Your task to perform on an android device: open the mobile data screen to see how much data has been used Image 0: 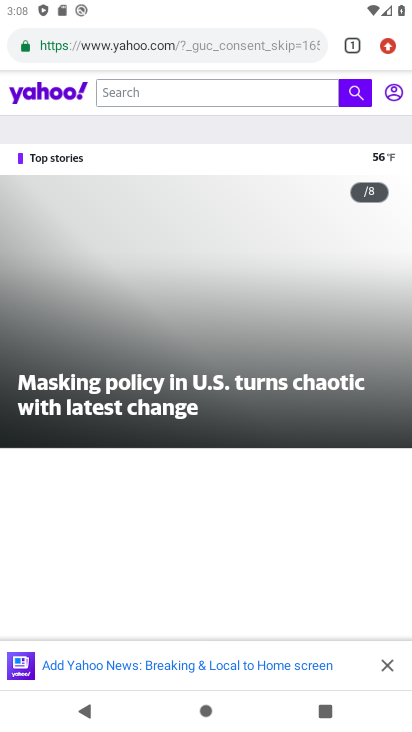
Step 0: press home button
Your task to perform on an android device: open the mobile data screen to see how much data has been used Image 1: 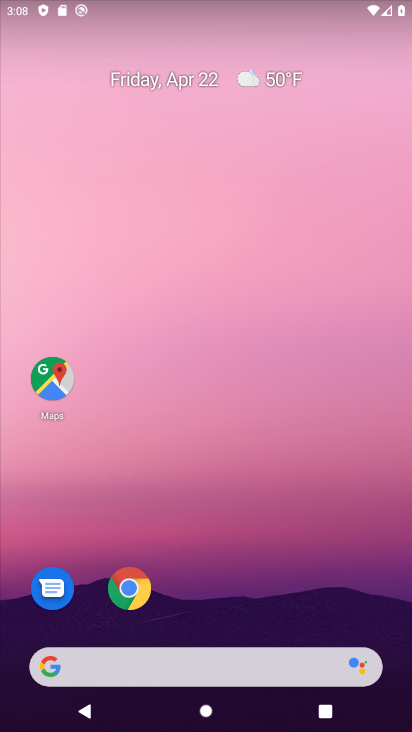
Step 1: drag from (354, 583) to (352, 85)
Your task to perform on an android device: open the mobile data screen to see how much data has been used Image 2: 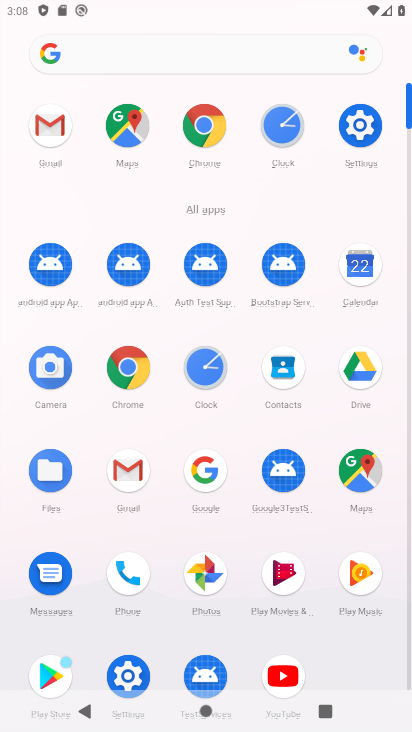
Step 2: click (368, 130)
Your task to perform on an android device: open the mobile data screen to see how much data has been used Image 3: 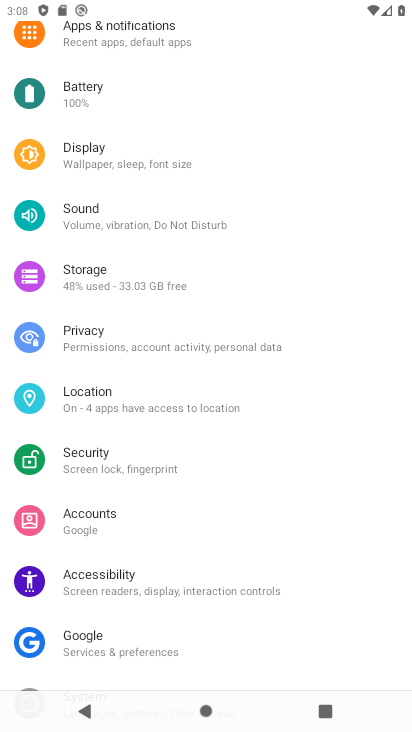
Step 3: drag from (366, 281) to (357, 426)
Your task to perform on an android device: open the mobile data screen to see how much data has been used Image 4: 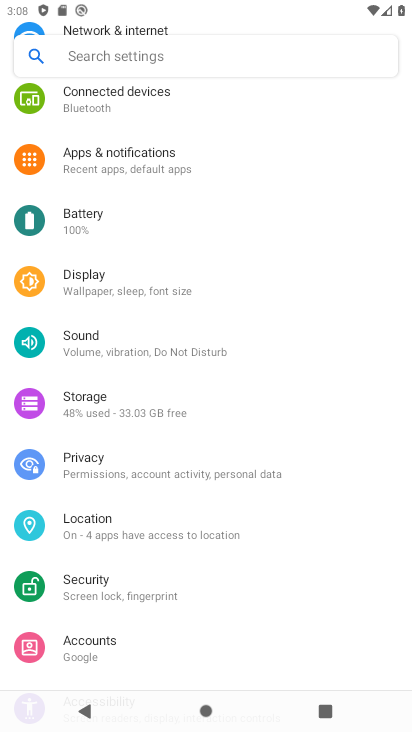
Step 4: drag from (346, 245) to (337, 394)
Your task to perform on an android device: open the mobile data screen to see how much data has been used Image 5: 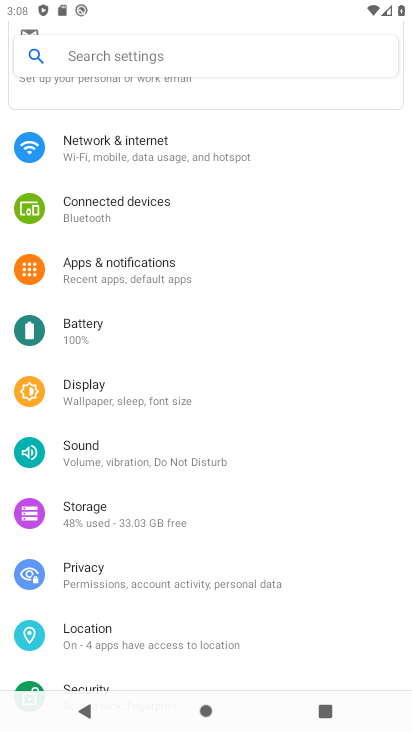
Step 5: drag from (337, 206) to (337, 374)
Your task to perform on an android device: open the mobile data screen to see how much data has been used Image 6: 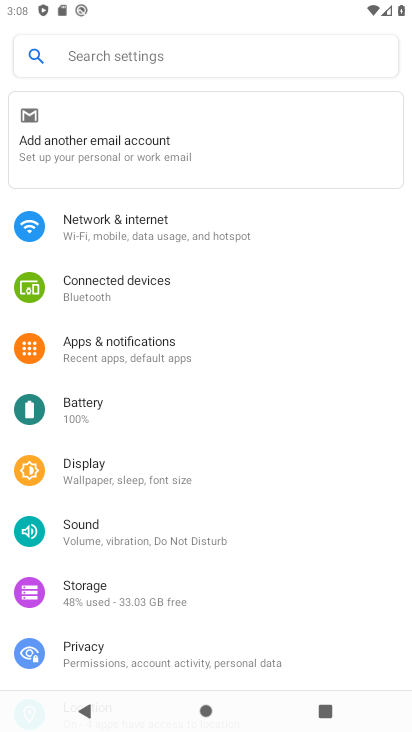
Step 6: drag from (356, 541) to (346, 388)
Your task to perform on an android device: open the mobile data screen to see how much data has been used Image 7: 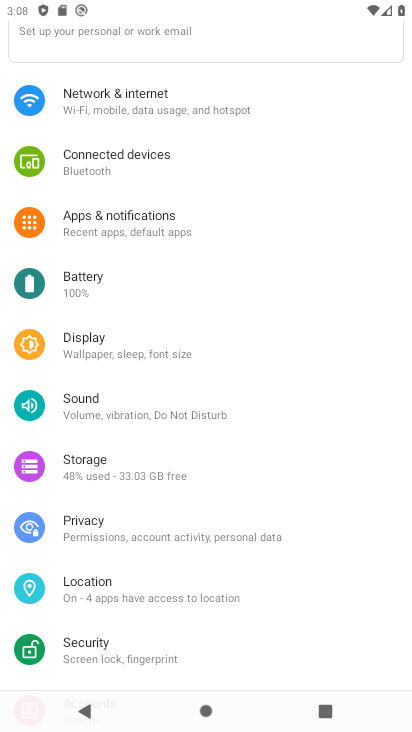
Step 7: drag from (337, 609) to (350, 403)
Your task to perform on an android device: open the mobile data screen to see how much data has been used Image 8: 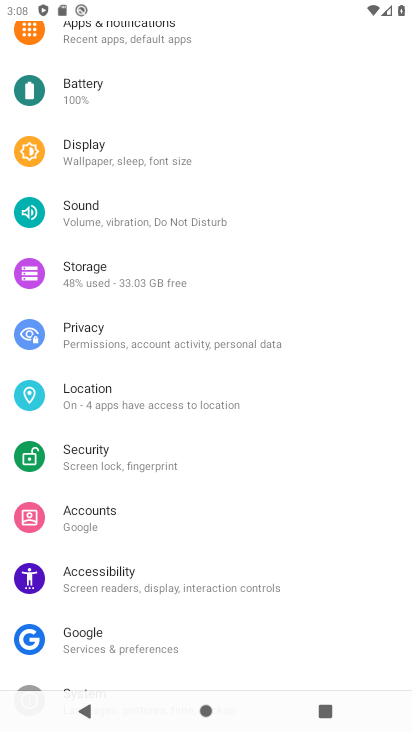
Step 8: drag from (345, 615) to (349, 302)
Your task to perform on an android device: open the mobile data screen to see how much data has been used Image 9: 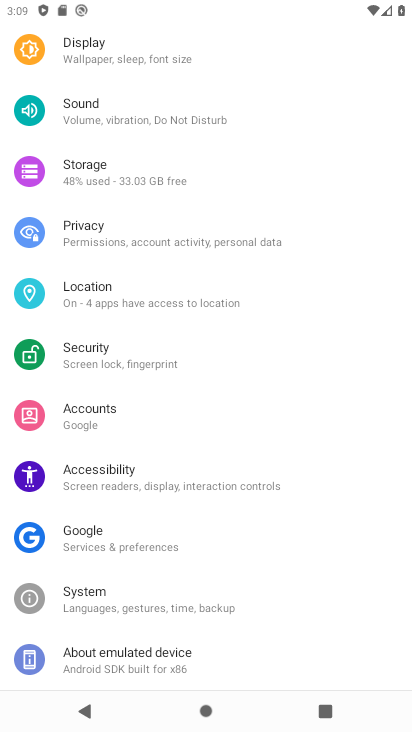
Step 9: drag from (345, 253) to (333, 425)
Your task to perform on an android device: open the mobile data screen to see how much data has been used Image 10: 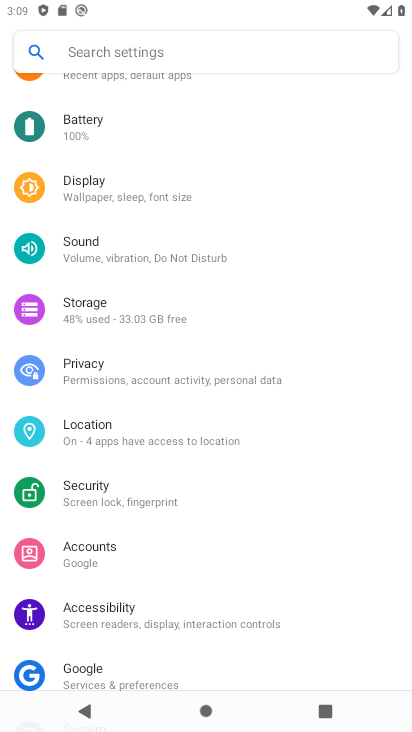
Step 10: drag from (335, 244) to (328, 428)
Your task to perform on an android device: open the mobile data screen to see how much data has been used Image 11: 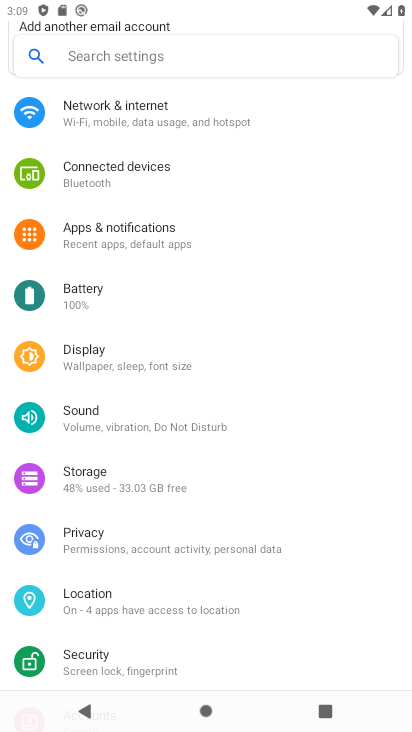
Step 11: drag from (330, 263) to (329, 407)
Your task to perform on an android device: open the mobile data screen to see how much data has been used Image 12: 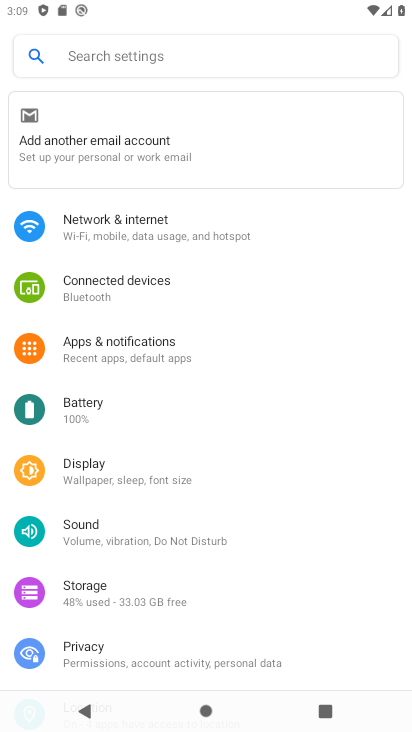
Step 12: click (195, 224)
Your task to perform on an android device: open the mobile data screen to see how much data has been used Image 13: 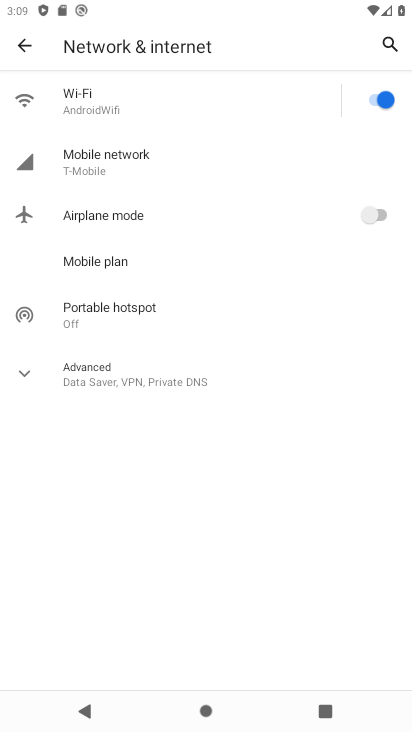
Step 13: click (111, 163)
Your task to perform on an android device: open the mobile data screen to see how much data has been used Image 14: 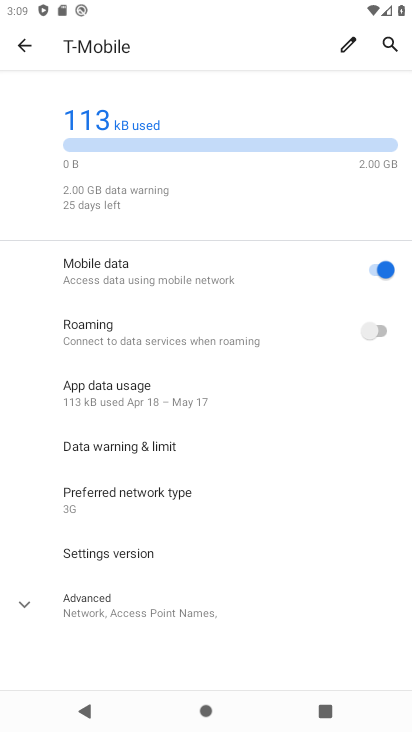
Step 14: click (171, 397)
Your task to perform on an android device: open the mobile data screen to see how much data has been used Image 15: 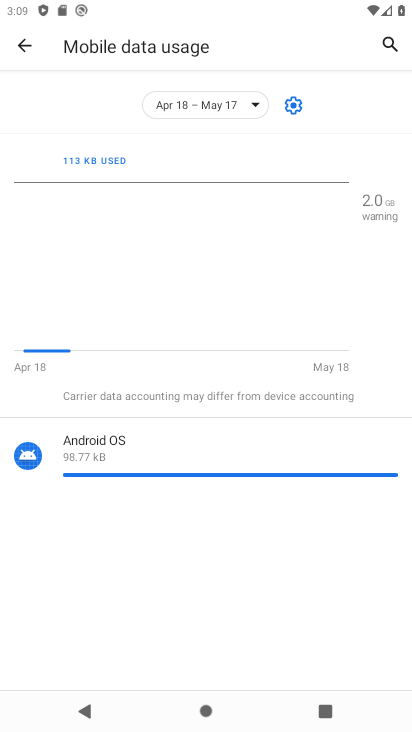
Step 15: task complete